Your task to perform on an android device: change the clock display to analog Image 0: 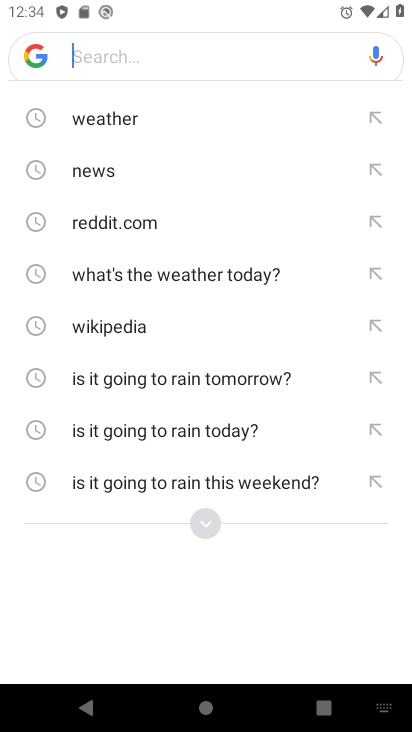
Step 0: press home button
Your task to perform on an android device: change the clock display to analog Image 1: 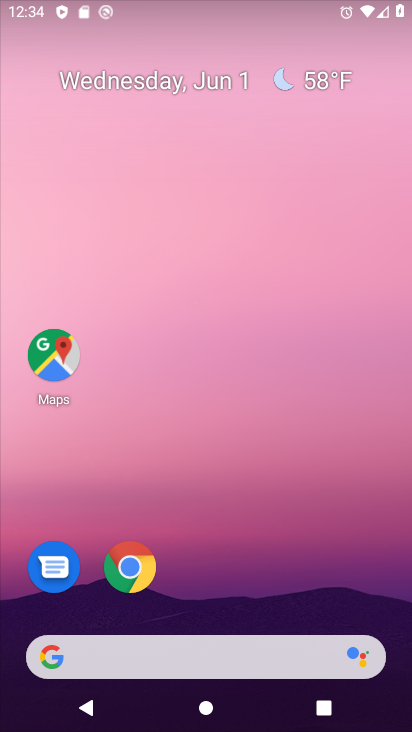
Step 1: drag from (206, 579) to (259, 55)
Your task to perform on an android device: change the clock display to analog Image 2: 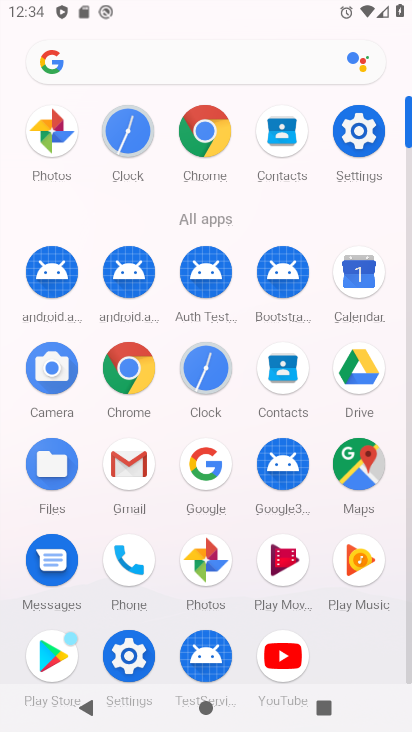
Step 2: click (213, 365)
Your task to perform on an android device: change the clock display to analog Image 3: 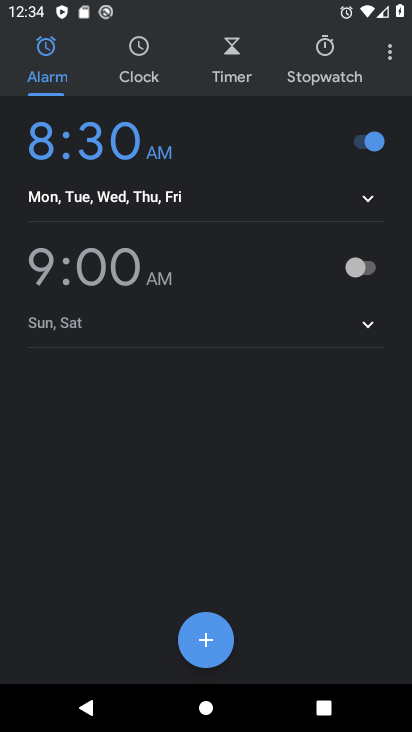
Step 3: click (379, 43)
Your task to perform on an android device: change the clock display to analog Image 4: 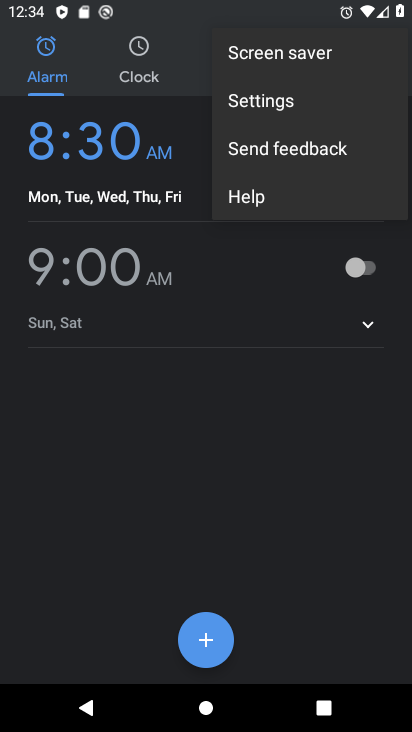
Step 4: click (273, 106)
Your task to perform on an android device: change the clock display to analog Image 5: 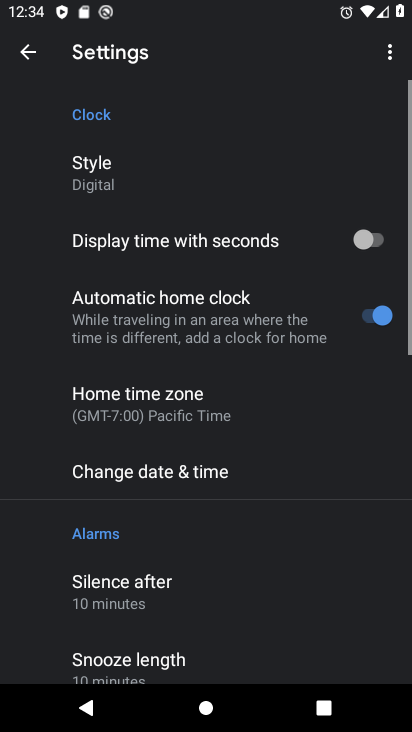
Step 5: click (133, 161)
Your task to perform on an android device: change the clock display to analog Image 6: 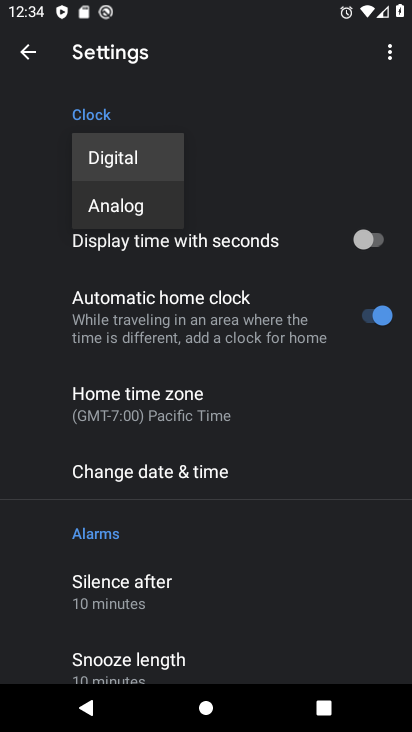
Step 6: click (115, 201)
Your task to perform on an android device: change the clock display to analog Image 7: 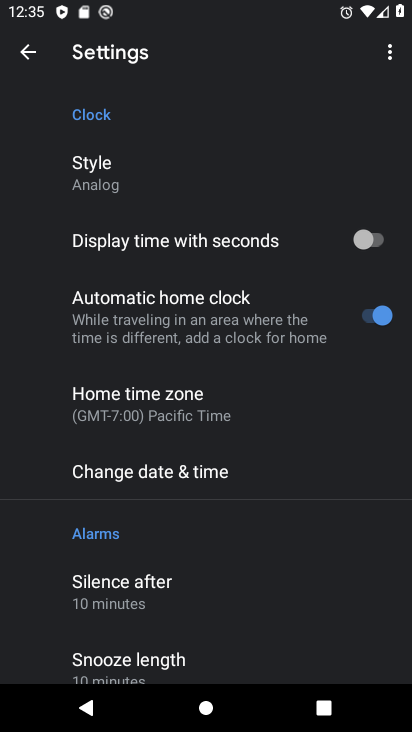
Step 7: task complete